Your task to perform on an android device: When is my next appointment? Image 0: 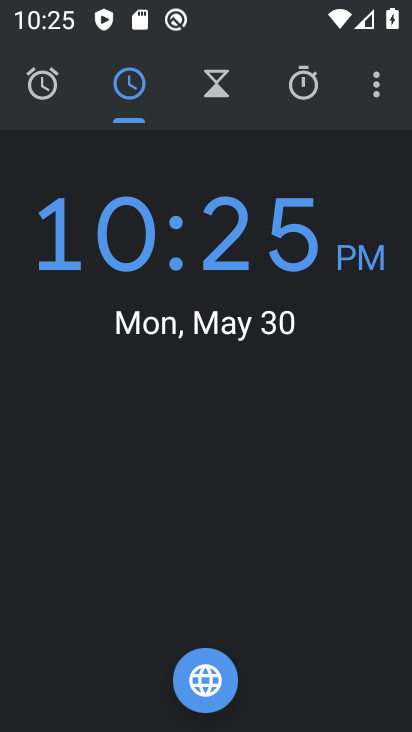
Step 0: press home button
Your task to perform on an android device: When is my next appointment? Image 1: 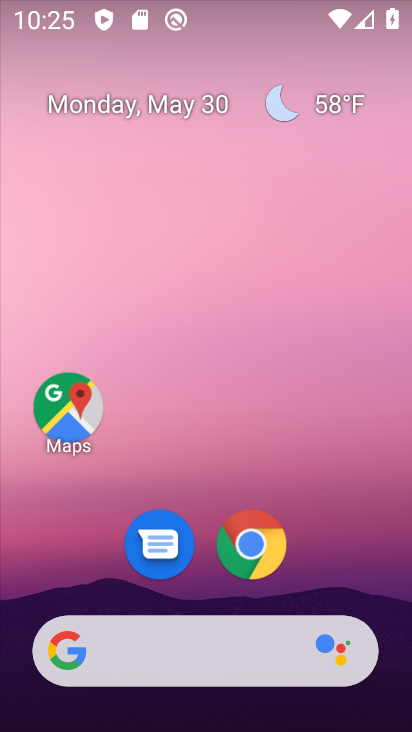
Step 1: drag from (351, 585) to (286, 83)
Your task to perform on an android device: When is my next appointment? Image 2: 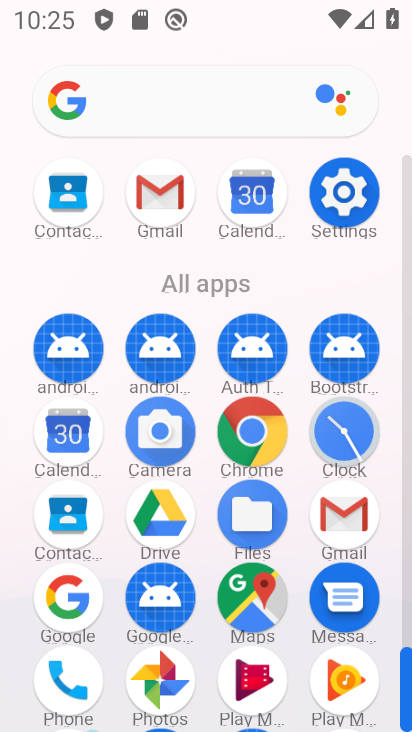
Step 2: click (341, 176)
Your task to perform on an android device: When is my next appointment? Image 3: 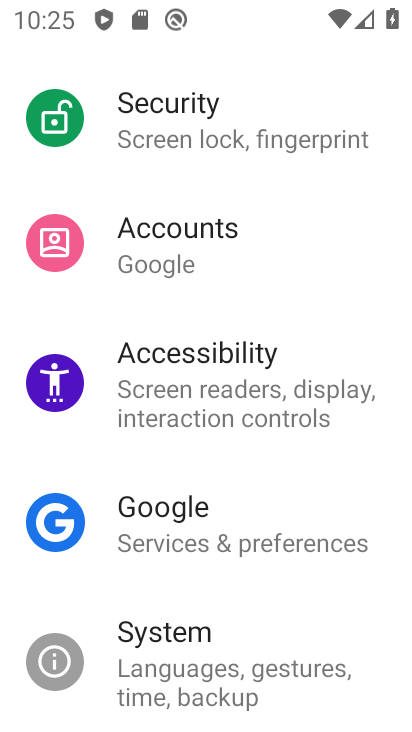
Step 3: task complete